Your task to perform on an android device: add a contact in the contacts app Image 0: 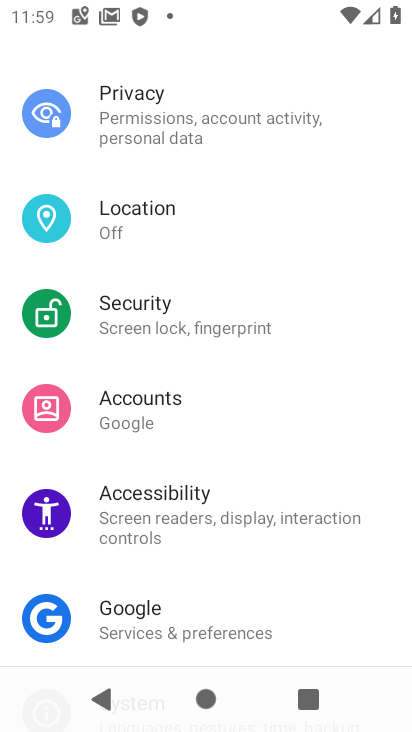
Step 0: press home button
Your task to perform on an android device: add a contact in the contacts app Image 1: 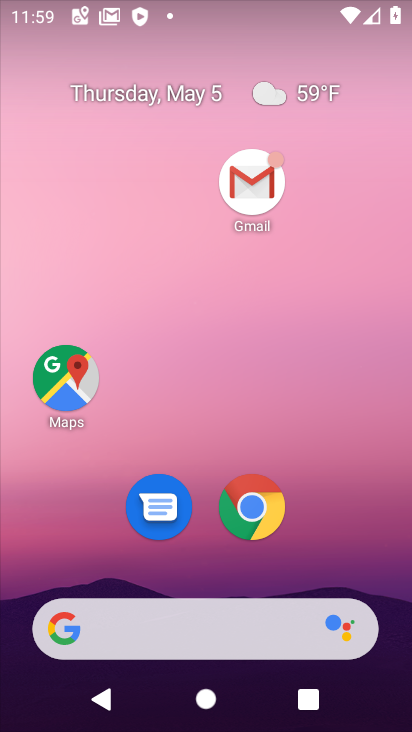
Step 1: drag from (359, 521) to (319, 169)
Your task to perform on an android device: add a contact in the contacts app Image 2: 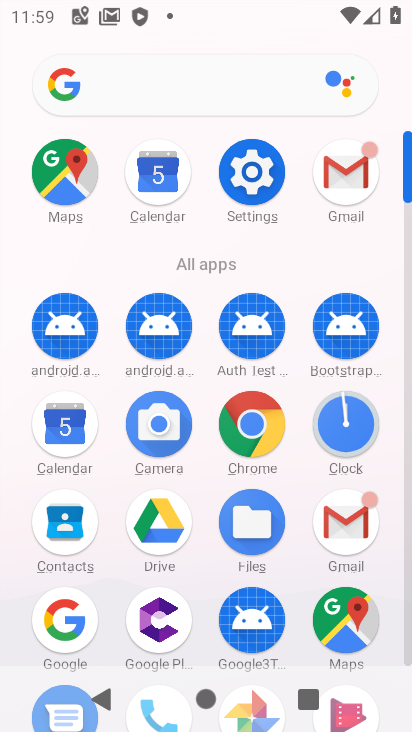
Step 2: click (67, 532)
Your task to perform on an android device: add a contact in the contacts app Image 3: 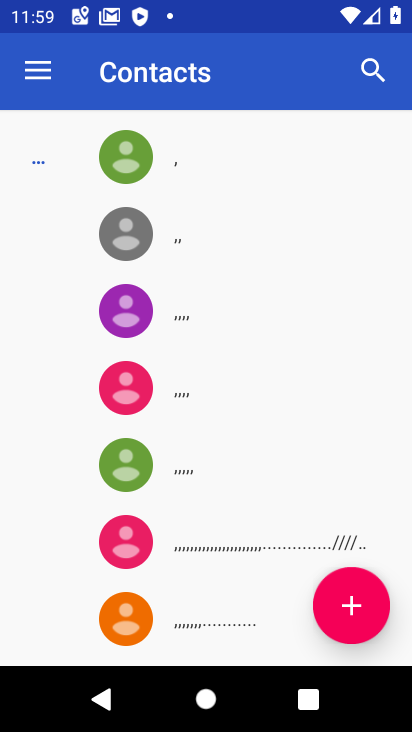
Step 3: click (355, 609)
Your task to perform on an android device: add a contact in the contacts app Image 4: 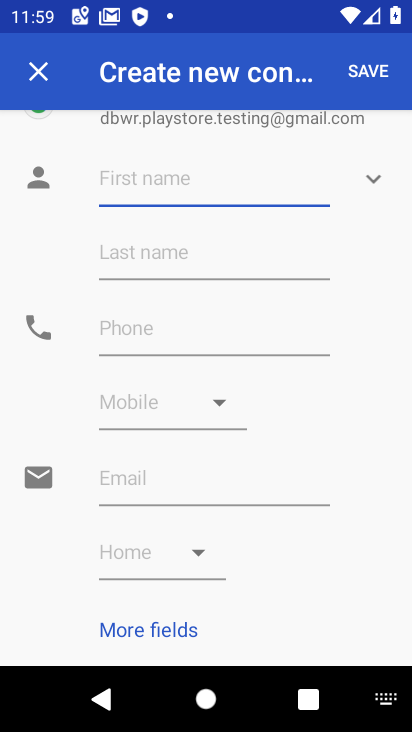
Step 4: click (205, 178)
Your task to perform on an android device: add a contact in the contacts app Image 5: 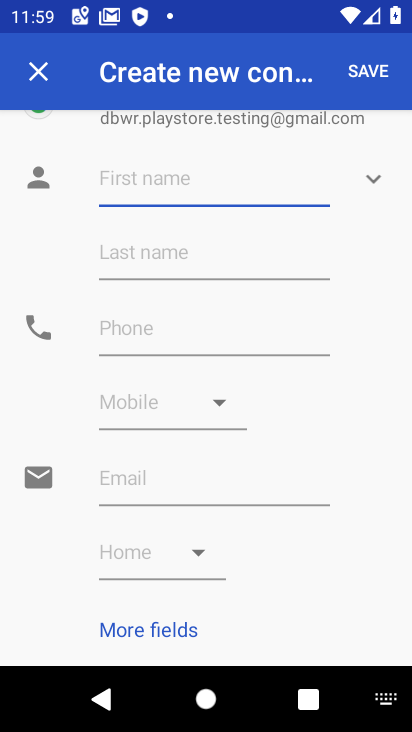
Step 5: type "laoe"
Your task to perform on an android device: add a contact in the contacts app Image 6: 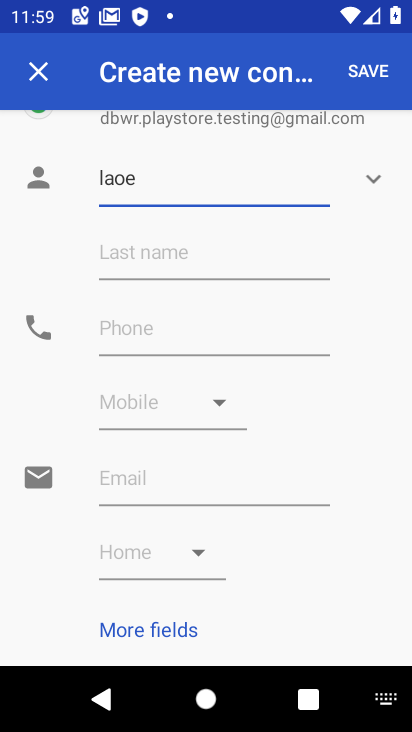
Step 6: click (145, 329)
Your task to perform on an android device: add a contact in the contacts app Image 7: 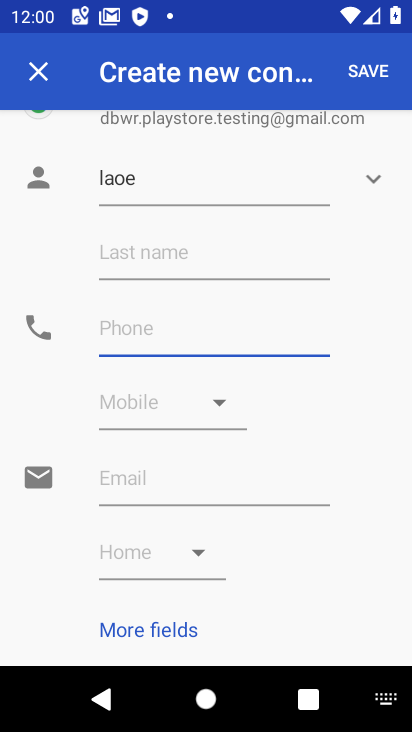
Step 7: type "09890934392"
Your task to perform on an android device: add a contact in the contacts app Image 8: 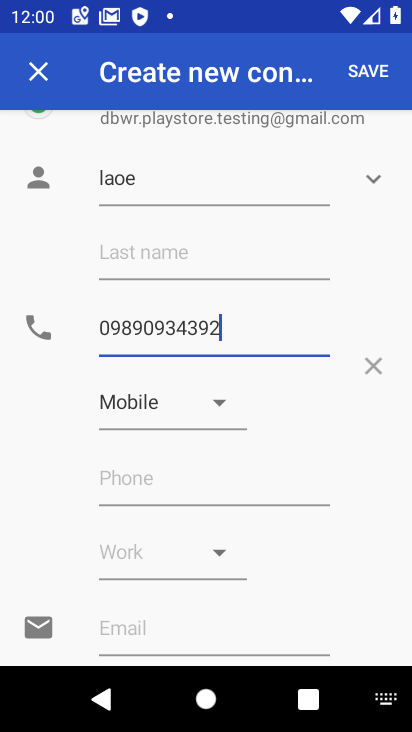
Step 8: click (367, 77)
Your task to perform on an android device: add a contact in the contacts app Image 9: 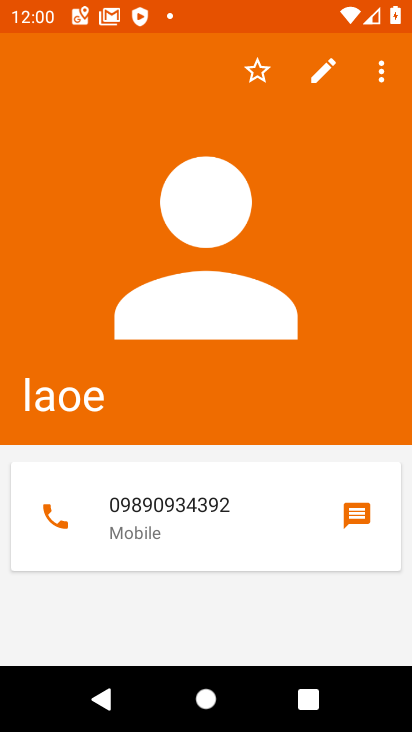
Step 9: task complete